Your task to perform on an android device: Open network settings Image 0: 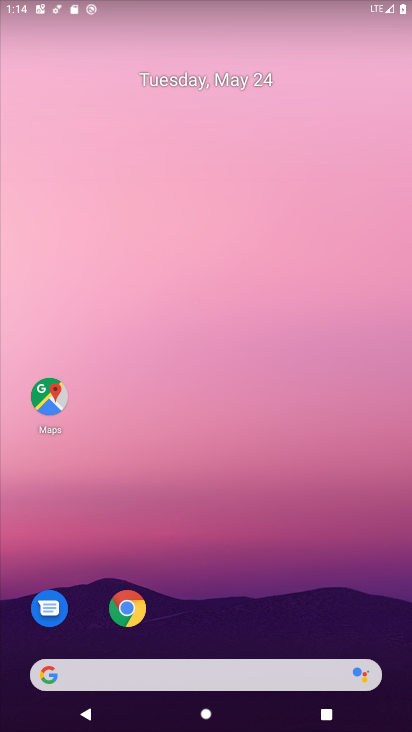
Step 0: drag from (246, 603) to (238, 151)
Your task to perform on an android device: Open network settings Image 1: 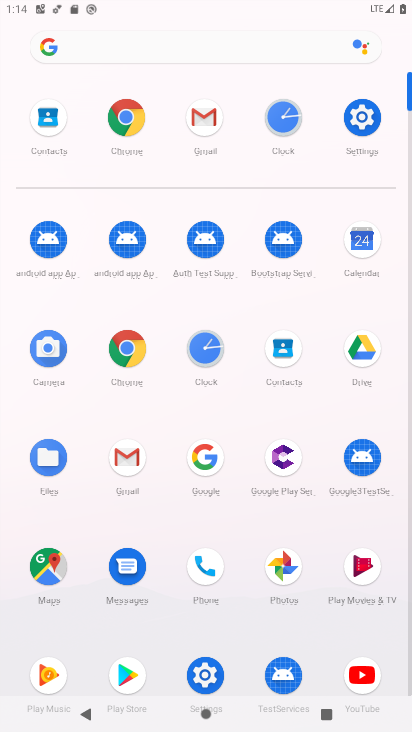
Step 1: click (358, 124)
Your task to perform on an android device: Open network settings Image 2: 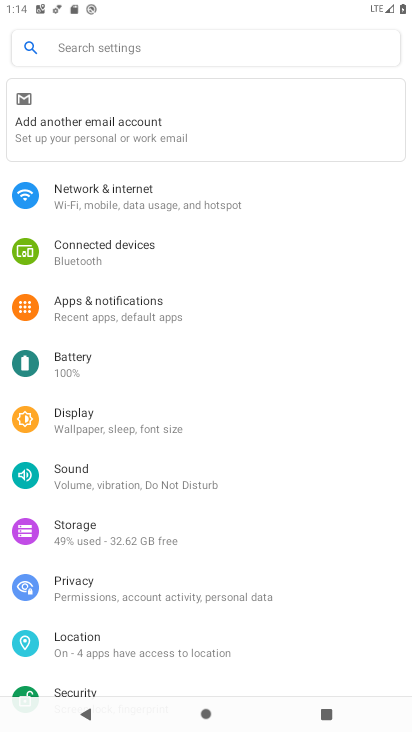
Step 2: click (182, 200)
Your task to perform on an android device: Open network settings Image 3: 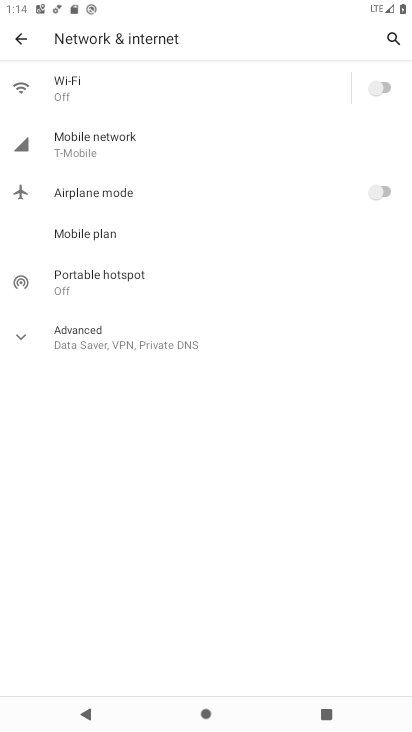
Step 3: click (375, 93)
Your task to perform on an android device: Open network settings Image 4: 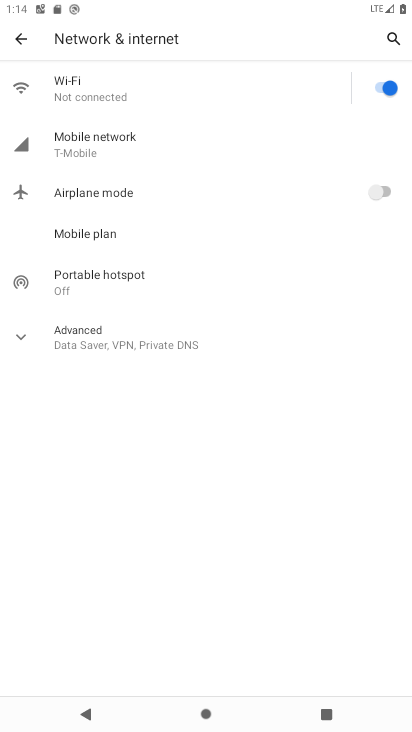
Step 4: task complete